Your task to perform on an android device: Search for pizza restaurants on Maps Image 0: 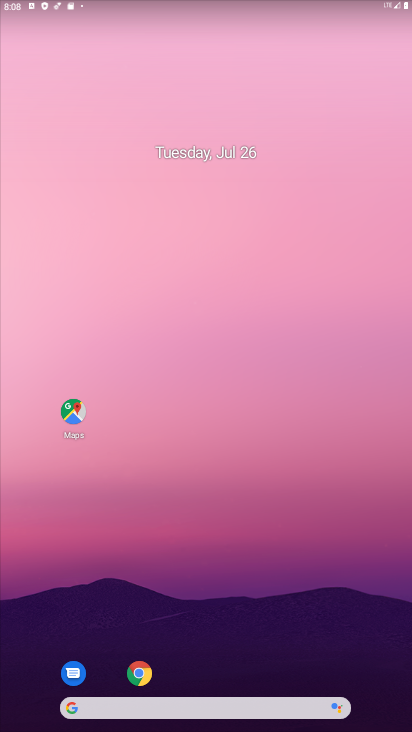
Step 0: click (81, 421)
Your task to perform on an android device: Search for pizza restaurants on Maps Image 1: 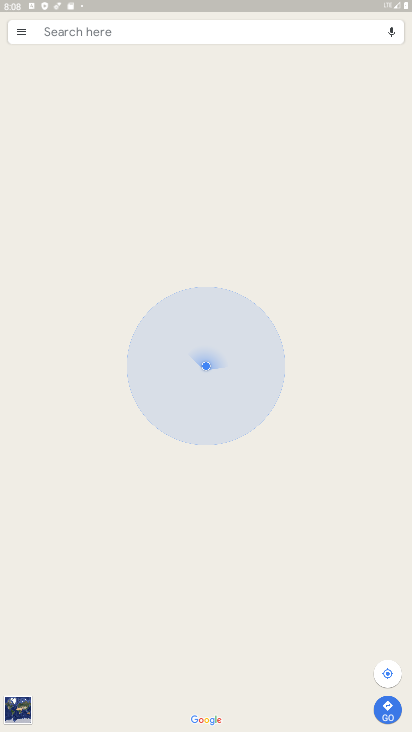
Step 1: click (154, 39)
Your task to perform on an android device: Search for pizza restaurants on Maps Image 2: 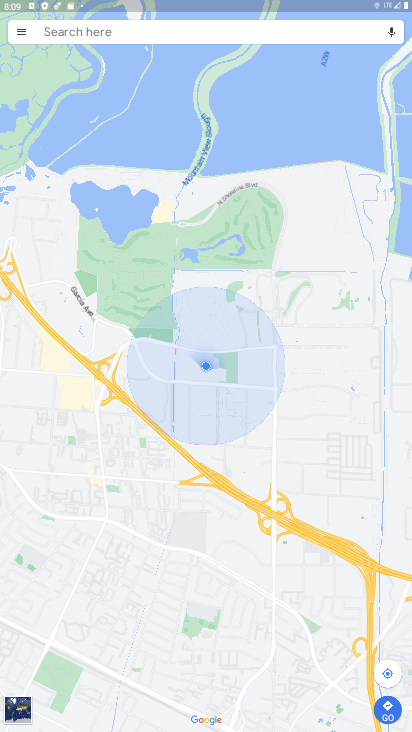
Step 2: click (166, 27)
Your task to perform on an android device: Search for pizza restaurants on Maps Image 3: 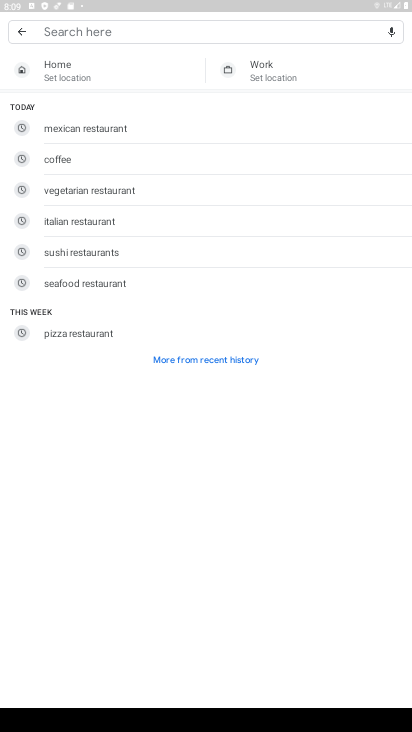
Step 3: click (124, 31)
Your task to perform on an android device: Search for pizza restaurants on Maps Image 4: 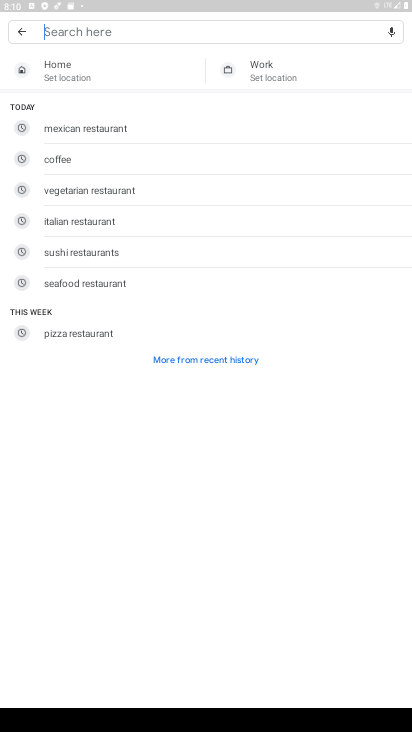
Step 4: type "pizza restaurants"
Your task to perform on an android device: Search for pizza restaurants on Maps Image 5: 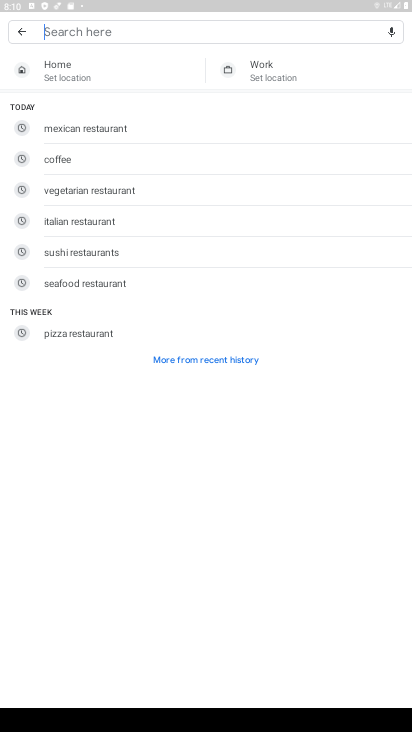
Step 5: click (68, 336)
Your task to perform on an android device: Search for pizza restaurants on Maps Image 6: 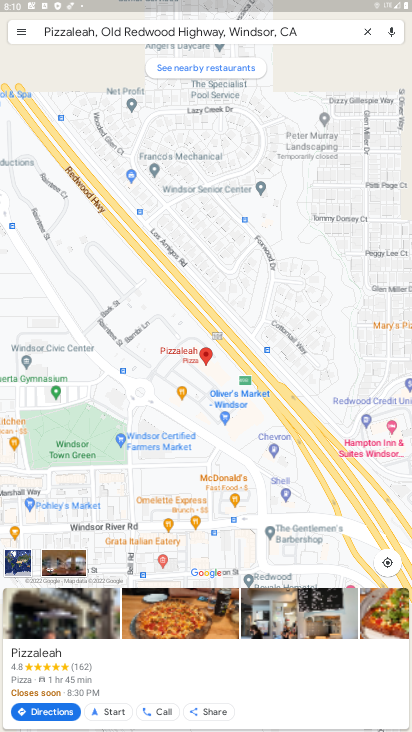
Step 6: task complete